Your task to perform on an android device: Go to calendar. Show me events next week Image 0: 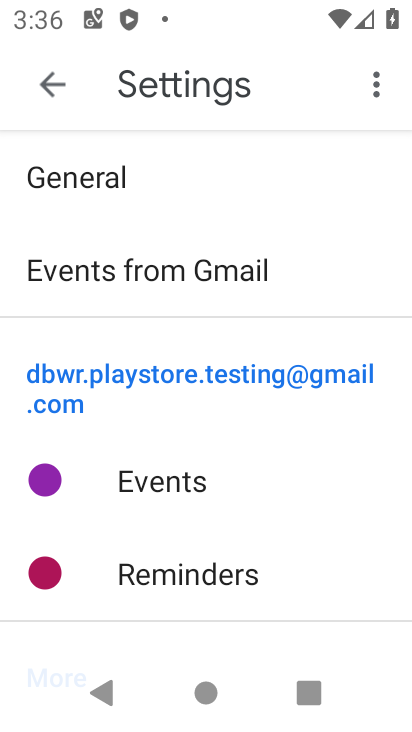
Step 0: press home button
Your task to perform on an android device: Go to calendar. Show me events next week Image 1: 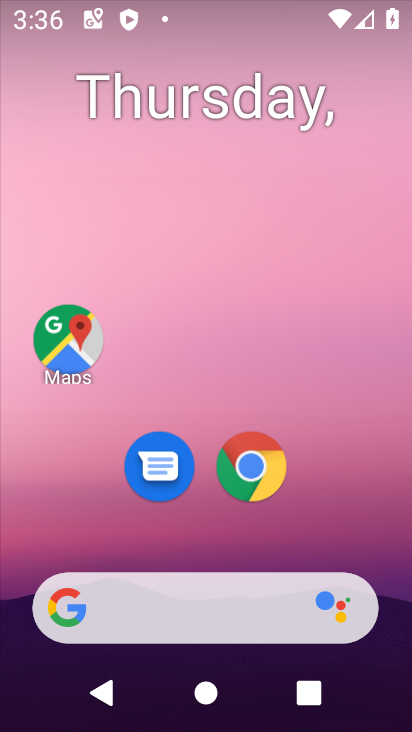
Step 1: drag from (317, 610) to (357, 47)
Your task to perform on an android device: Go to calendar. Show me events next week Image 2: 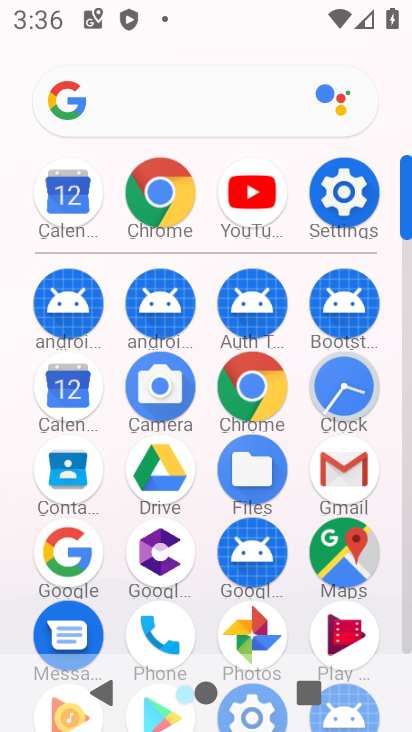
Step 2: click (63, 380)
Your task to perform on an android device: Go to calendar. Show me events next week Image 3: 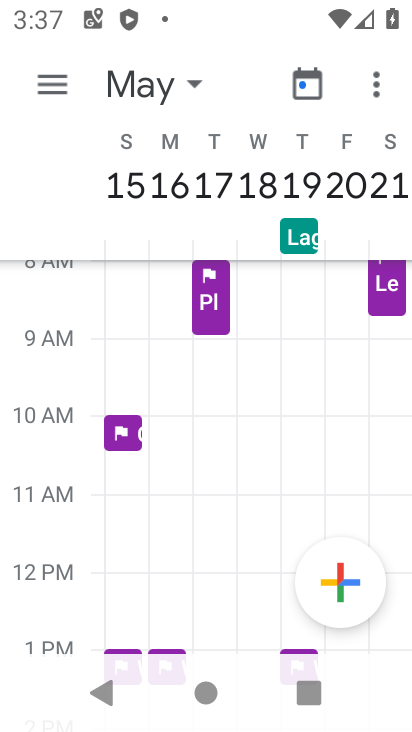
Step 3: click (191, 85)
Your task to perform on an android device: Go to calendar. Show me events next week Image 4: 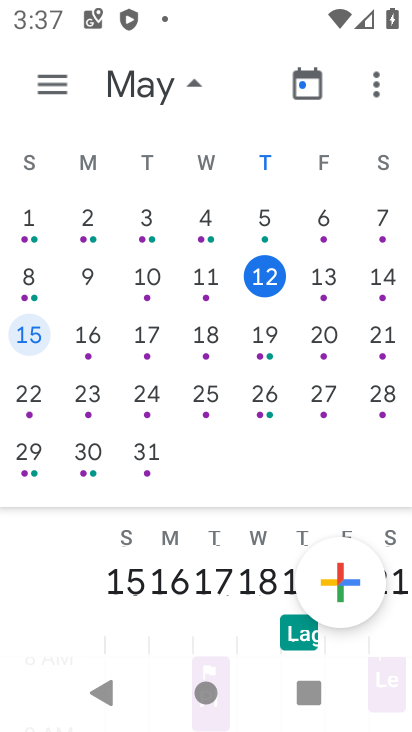
Step 4: click (268, 334)
Your task to perform on an android device: Go to calendar. Show me events next week Image 5: 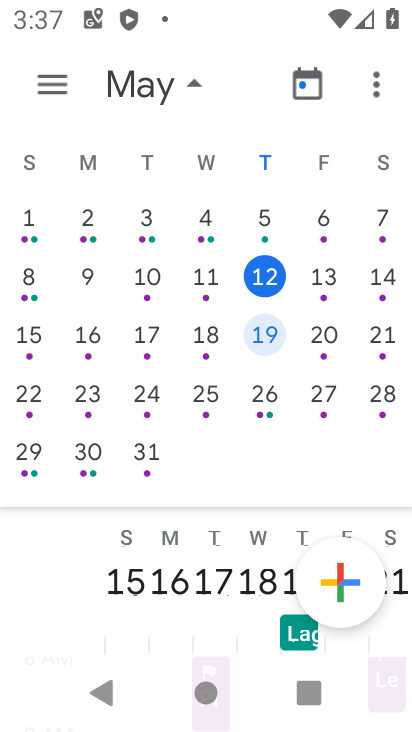
Step 5: click (267, 327)
Your task to perform on an android device: Go to calendar. Show me events next week Image 6: 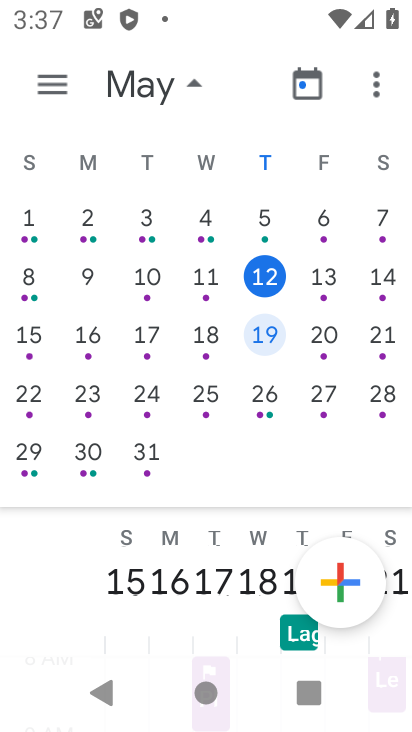
Step 6: click (194, 85)
Your task to perform on an android device: Go to calendar. Show me events next week Image 7: 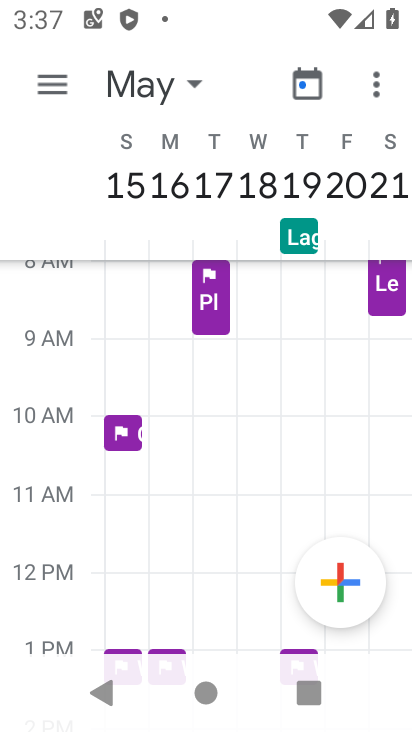
Step 7: click (194, 85)
Your task to perform on an android device: Go to calendar. Show me events next week Image 8: 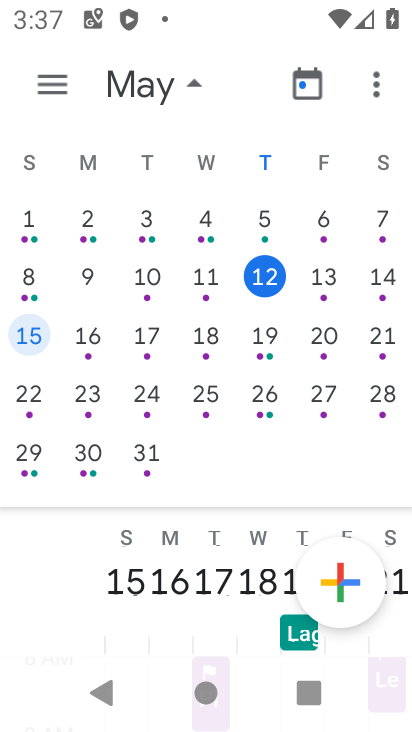
Step 8: click (53, 76)
Your task to perform on an android device: Go to calendar. Show me events next week Image 9: 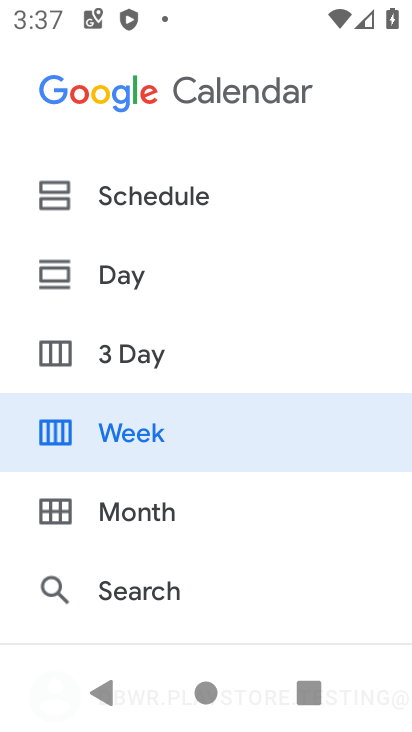
Step 9: click (164, 427)
Your task to perform on an android device: Go to calendar. Show me events next week Image 10: 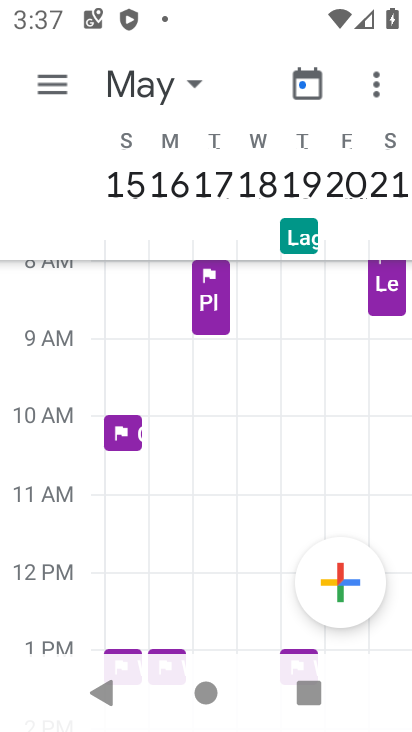
Step 10: task complete